Your task to perform on an android device: snooze an email in the gmail app Image 0: 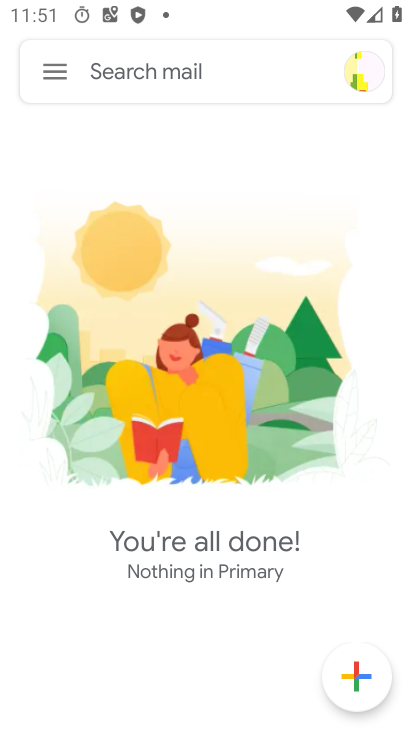
Step 0: press home button
Your task to perform on an android device: snooze an email in the gmail app Image 1: 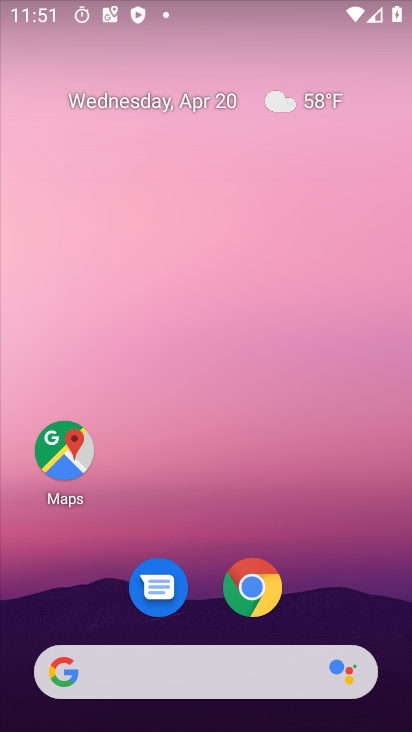
Step 1: drag from (199, 467) to (249, 10)
Your task to perform on an android device: snooze an email in the gmail app Image 2: 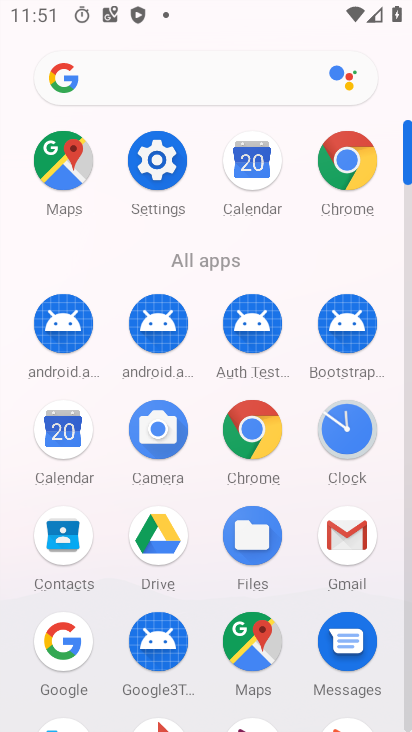
Step 2: click (353, 537)
Your task to perform on an android device: snooze an email in the gmail app Image 3: 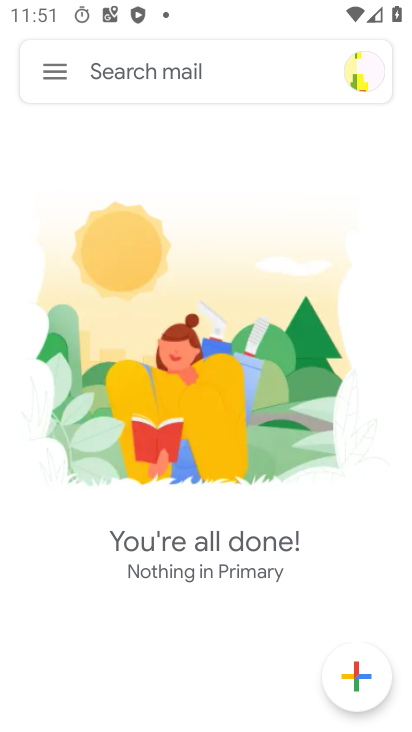
Step 3: click (54, 62)
Your task to perform on an android device: snooze an email in the gmail app Image 4: 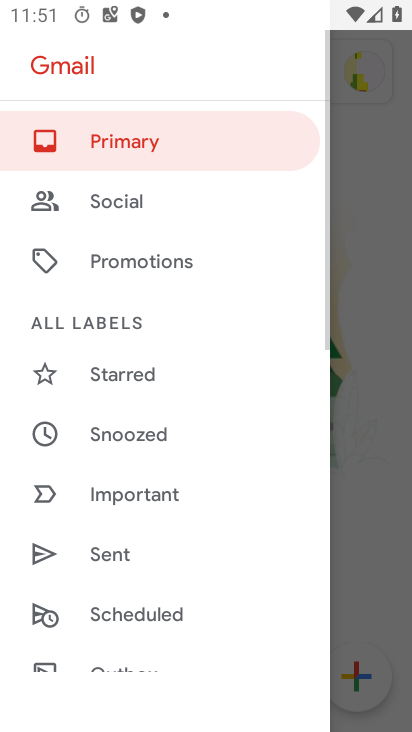
Step 4: drag from (109, 561) to (127, 211)
Your task to perform on an android device: snooze an email in the gmail app Image 5: 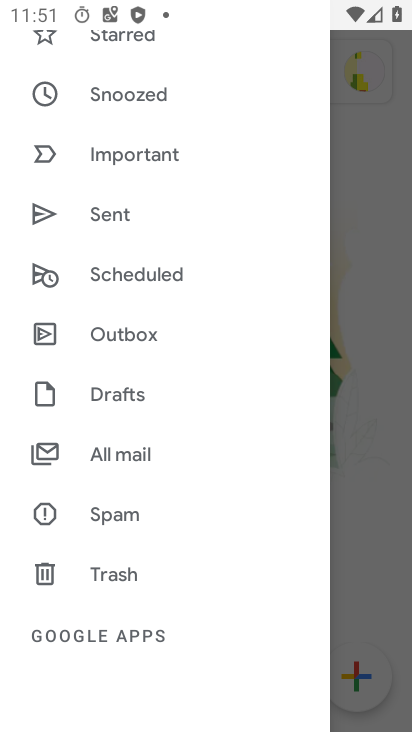
Step 5: click (154, 461)
Your task to perform on an android device: snooze an email in the gmail app Image 6: 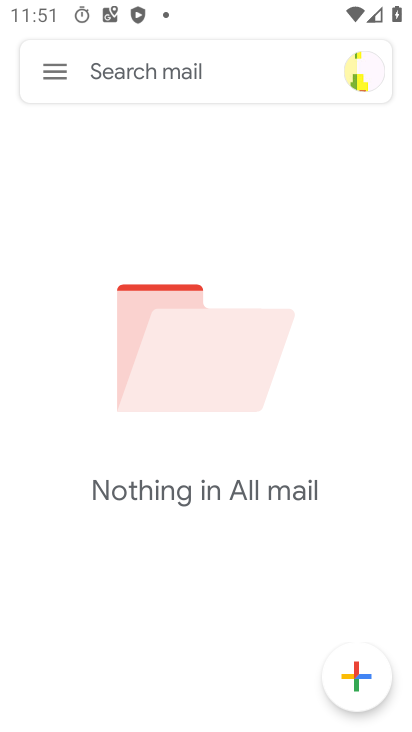
Step 6: task complete